Your task to perform on an android device: turn notification dots off Image 0: 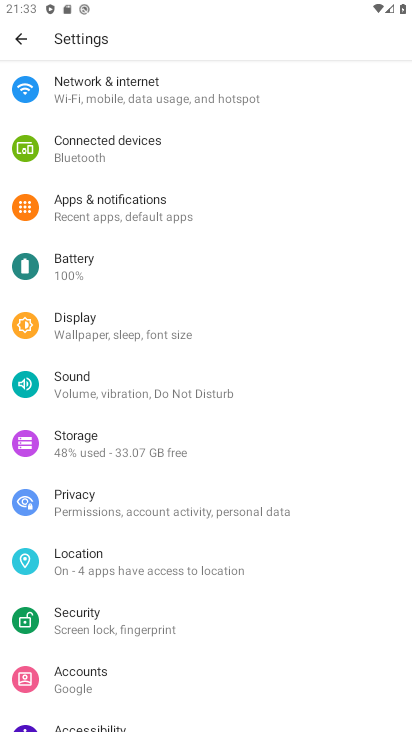
Step 0: click (140, 217)
Your task to perform on an android device: turn notification dots off Image 1: 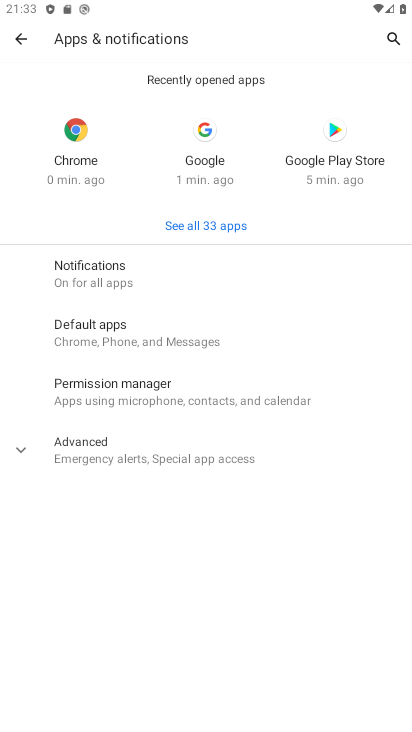
Step 1: click (145, 284)
Your task to perform on an android device: turn notification dots off Image 2: 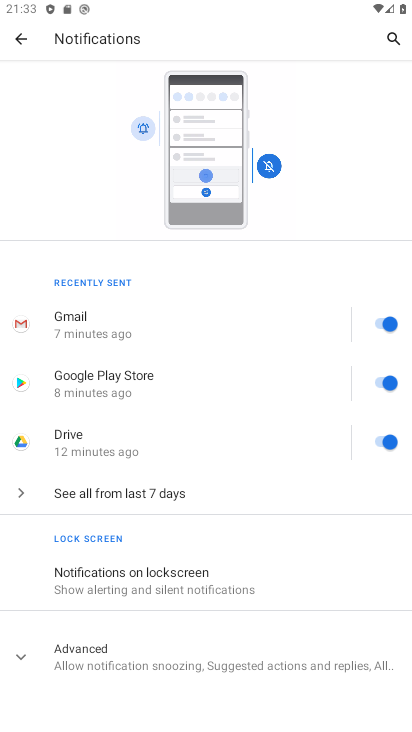
Step 2: drag from (121, 651) to (223, 384)
Your task to perform on an android device: turn notification dots off Image 3: 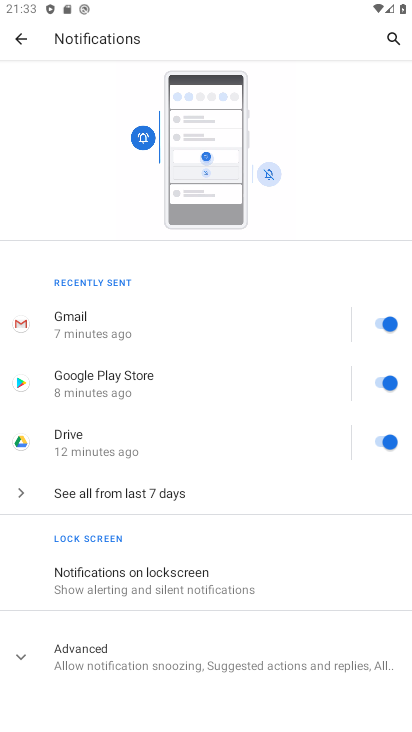
Step 3: click (181, 667)
Your task to perform on an android device: turn notification dots off Image 4: 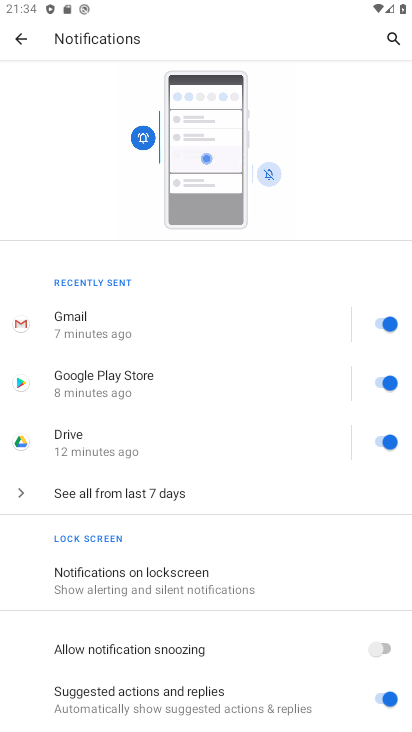
Step 4: drag from (177, 645) to (284, 313)
Your task to perform on an android device: turn notification dots off Image 5: 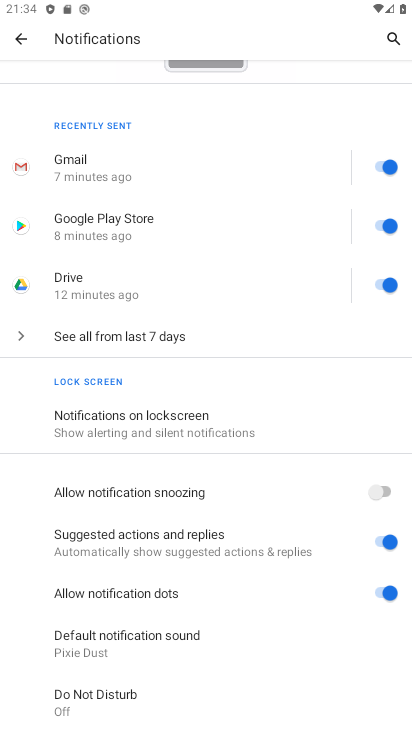
Step 5: drag from (220, 673) to (333, 420)
Your task to perform on an android device: turn notification dots off Image 6: 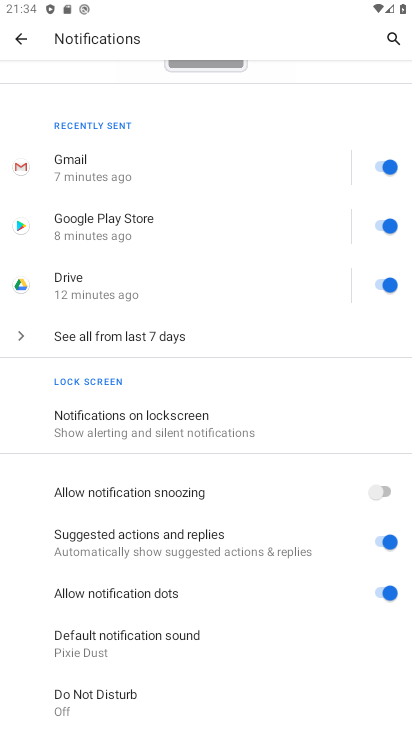
Step 6: drag from (157, 698) to (253, 417)
Your task to perform on an android device: turn notification dots off Image 7: 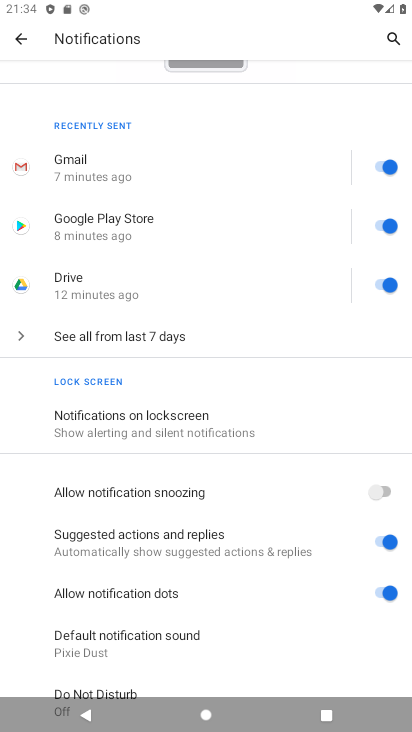
Step 7: click (370, 592)
Your task to perform on an android device: turn notification dots off Image 8: 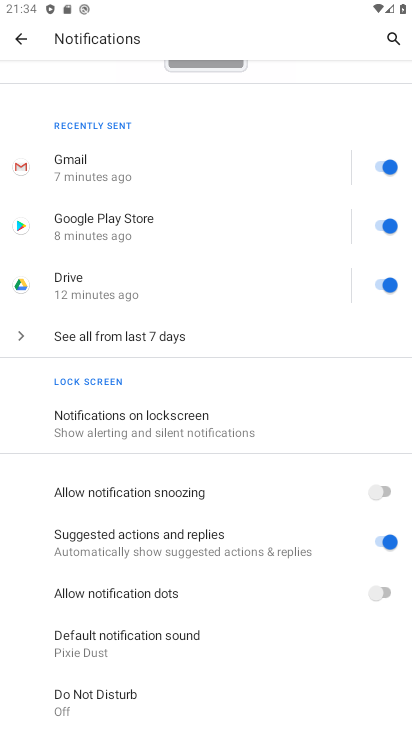
Step 8: task complete